Your task to perform on an android device: What's the weather going to be tomorrow? Image 0: 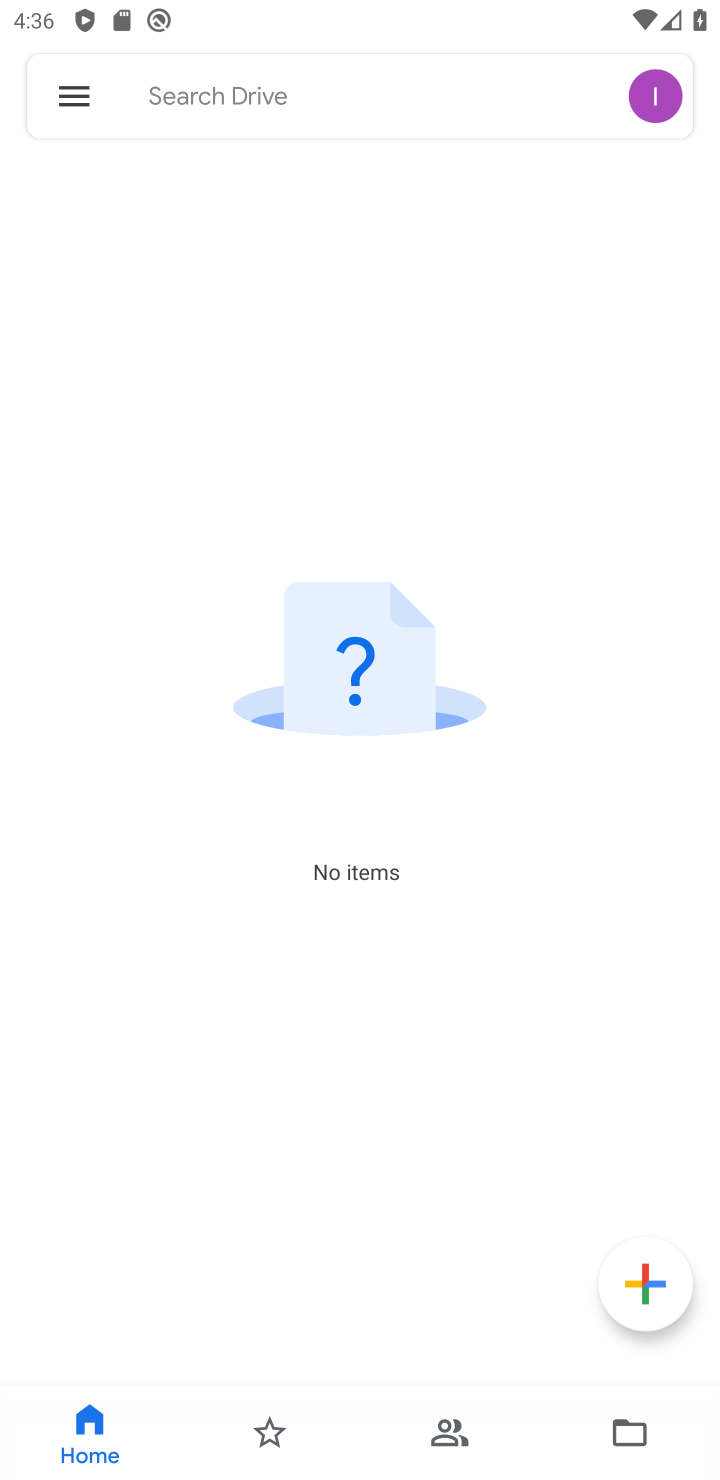
Step 0: press home button
Your task to perform on an android device: What's the weather going to be tomorrow? Image 1: 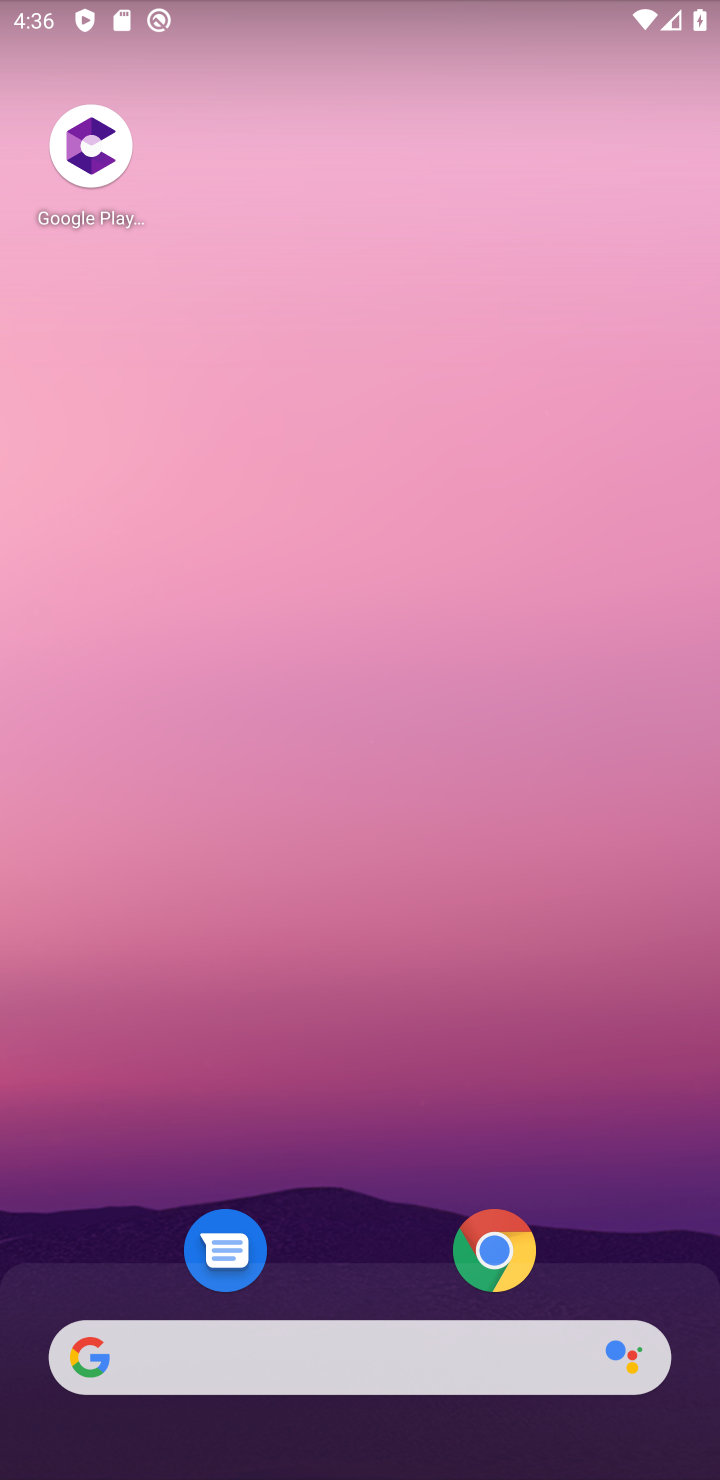
Step 1: click (306, 1366)
Your task to perform on an android device: What's the weather going to be tomorrow? Image 2: 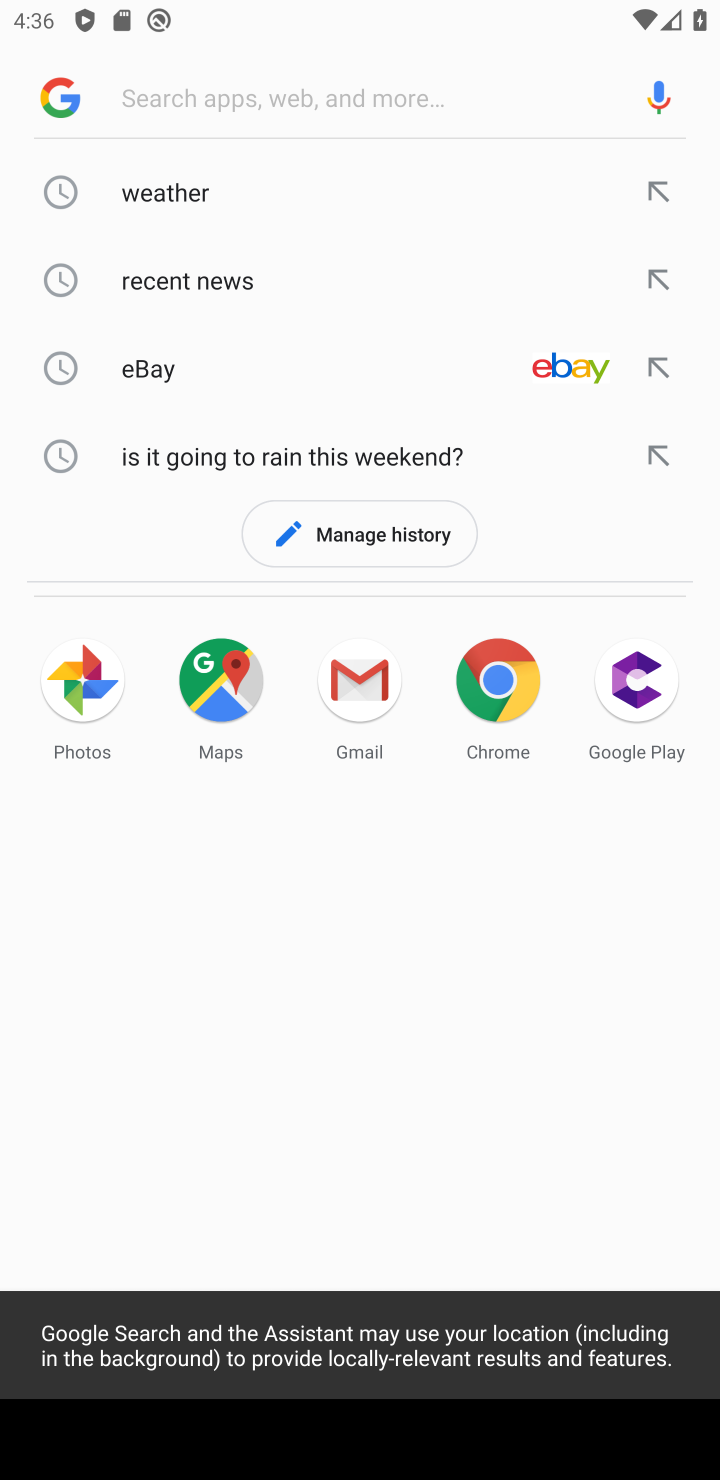
Step 2: click (182, 454)
Your task to perform on an android device: What's the weather going to be tomorrow? Image 3: 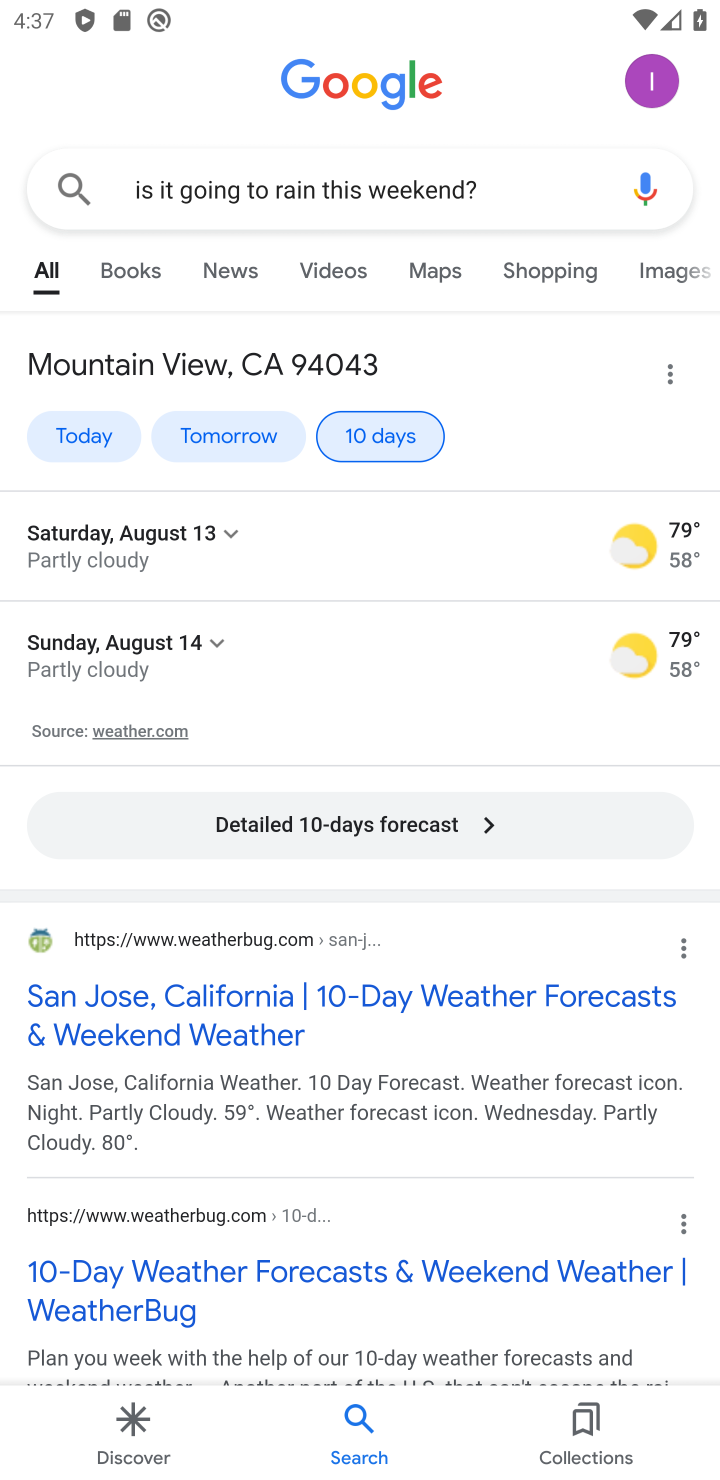
Step 3: task complete